Your task to perform on an android device: visit the assistant section in the google photos Image 0: 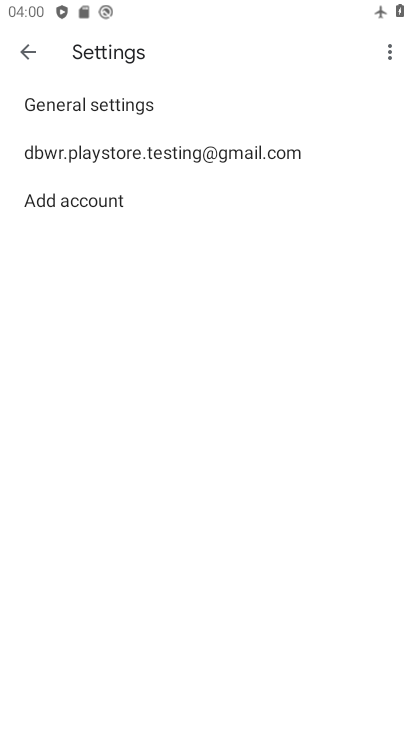
Step 0: press home button
Your task to perform on an android device: visit the assistant section in the google photos Image 1: 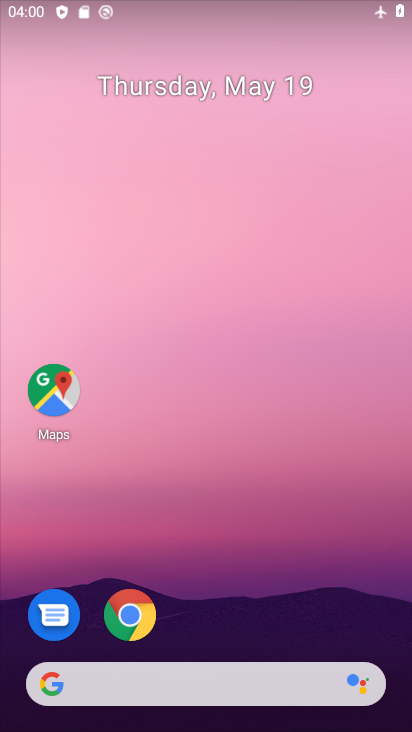
Step 1: drag from (293, 614) to (324, 12)
Your task to perform on an android device: visit the assistant section in the google photos Image 2: 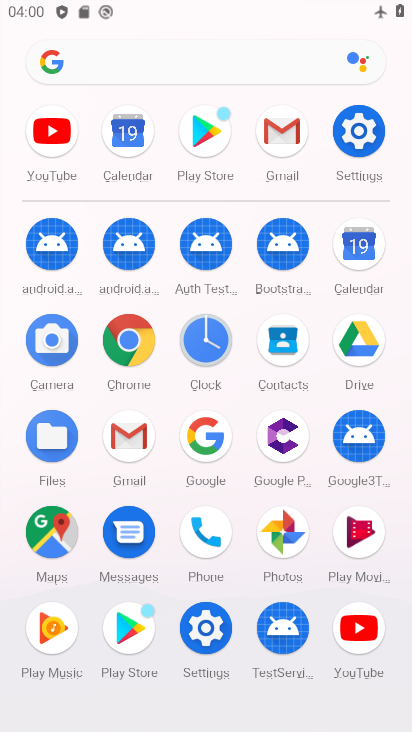
Step 2: click (285, 539)
Your task to perform on an android device: visit the assistant section in the google photos Image 3: 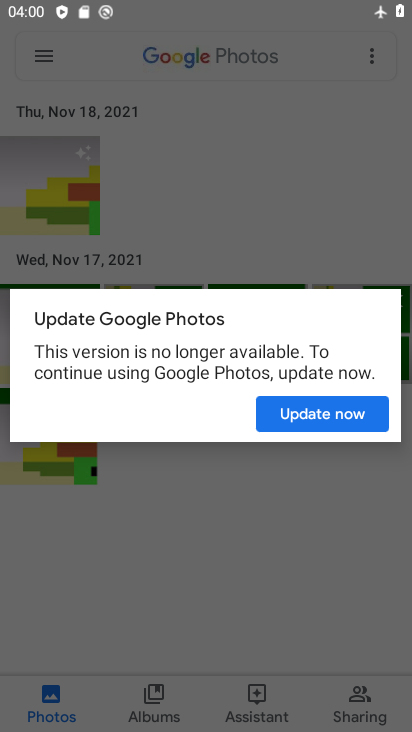
Step 3: click (297, 417)
Your task to perform on an android device: visit the assistant section in the google photos Image 4: 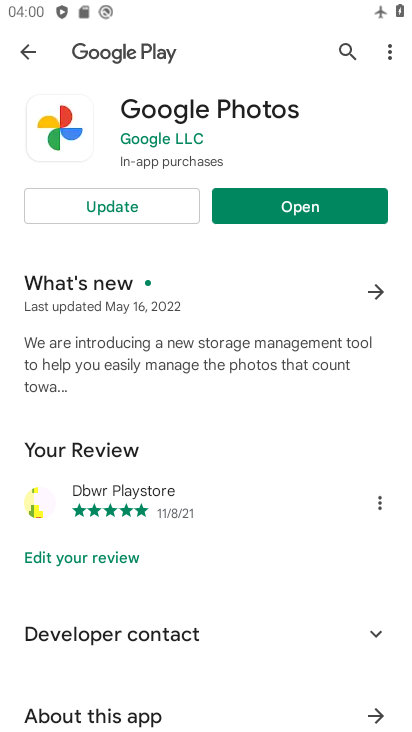
Step 4: click (305, 192)
Your task to perform on an android device: visit the assistant section in the google photos Image 5: 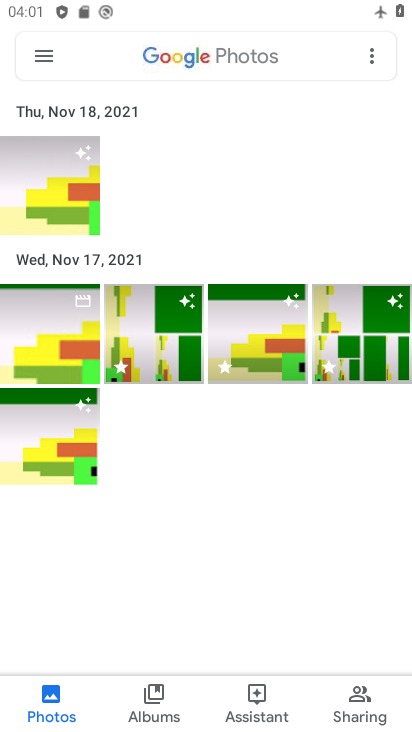
Step 5: click (251, 682)
Your task to perform on an android device: visit the assistant section in the google photos Image 6: 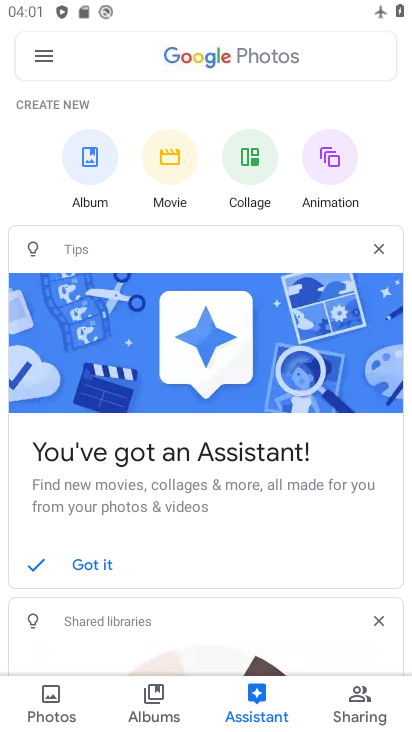
Step 6: task complete